Your task to perform on an android device: see tabs open on other devices in the chrome app Image 0: 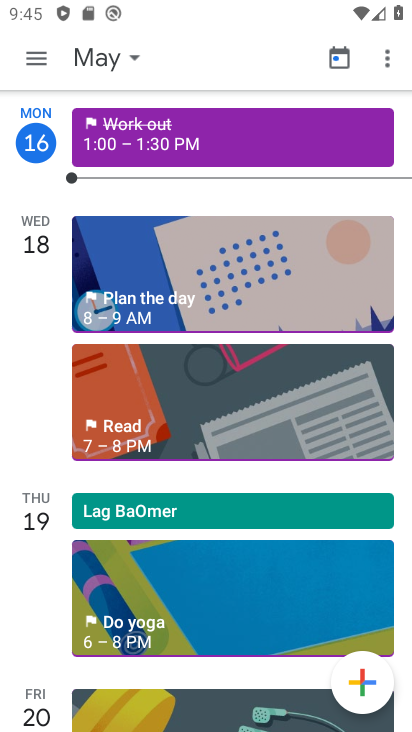
Step 0: press home button
Your task to perform on an android device: see tabs open on other devices in the chrome app Image 1: 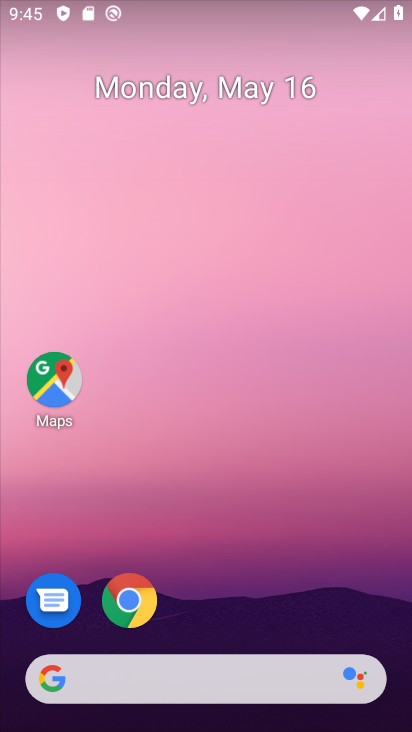
Step 1: drag from (343, 628) to (311, 289)
Your task to perform on an android device: see tabs open on other devices in the chrome app Image 2: 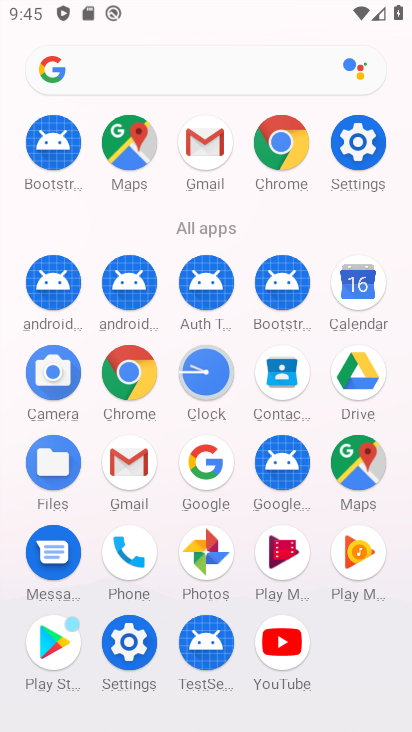
Step 2: click (125, 373)
Your task to perform on an android device: see tabs open on other devices in the chrome app Image 3: 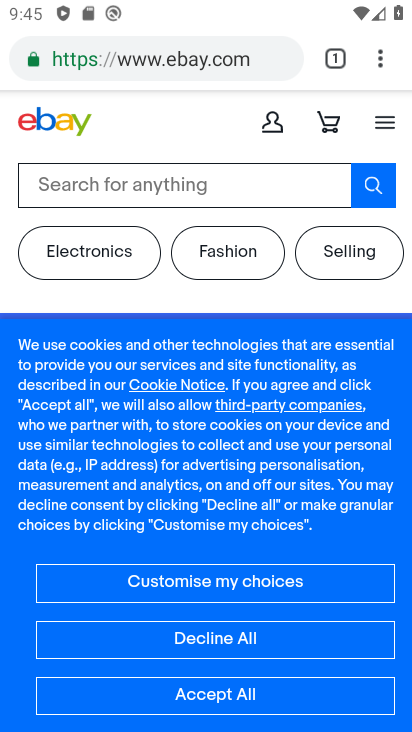
Step 3: click (342, 50)
Your task to perform on an android device: see tabs open on other devices in the chrome app Image 4: 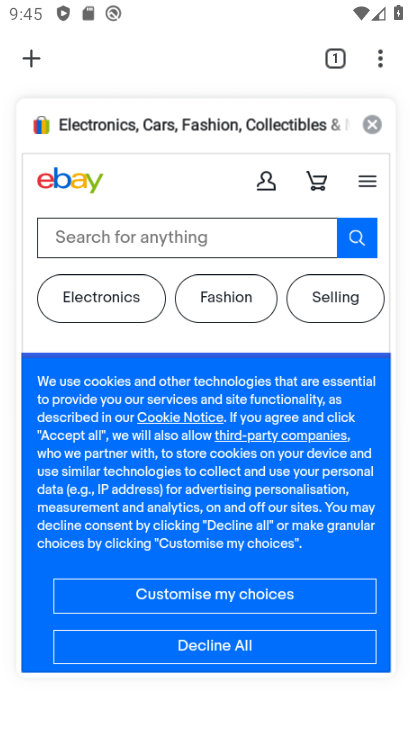
Step 4: click (14, 48)
Your task to perform on an android device: see tabs open on other devices in the chrome app Image 5: 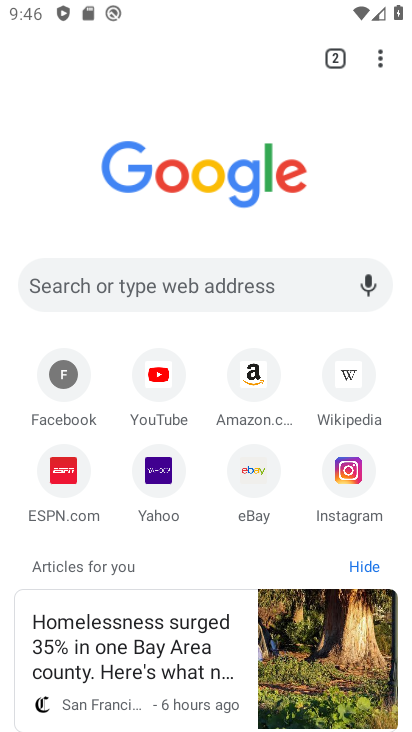
Step 5: task complete